Your task to perform on an android device: find snoozed emails in the gmail app Image 0: 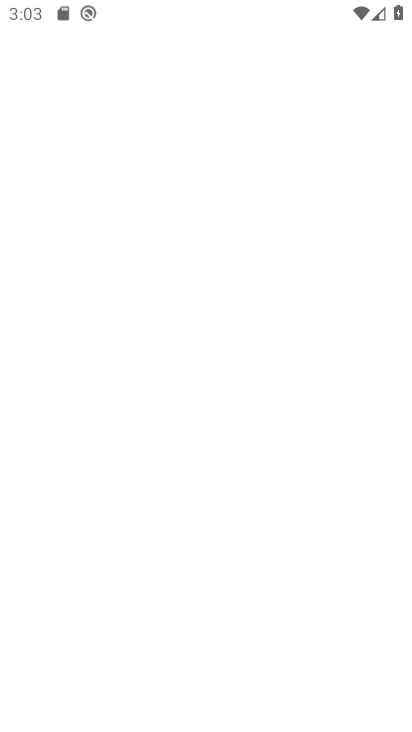
Step 0: press home button
Your task to perform on an android device: find snoozed emails in the gmail app Image 1: 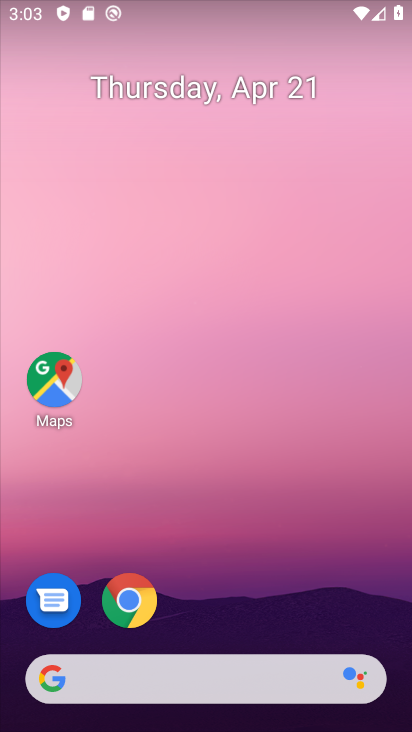
Step 1: drag from (281, 555) to (261, 81)
Your task to perform on an android device: find snoozed emails in the gmail app Image 2: 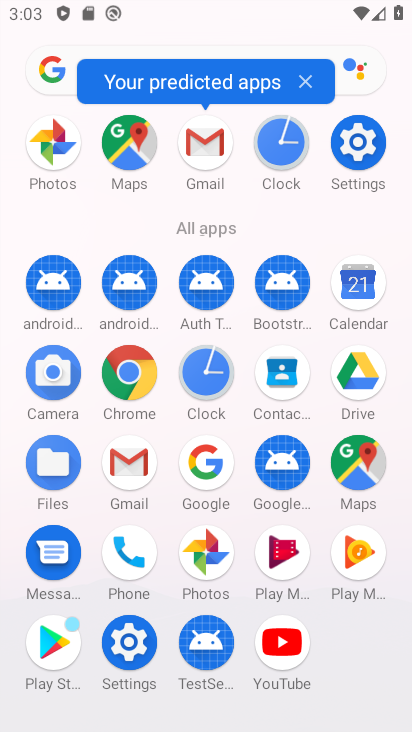
Step 2: click (209, 143)
Your task to perform on an android device: find snoozed emails in the gmail app Image 3: 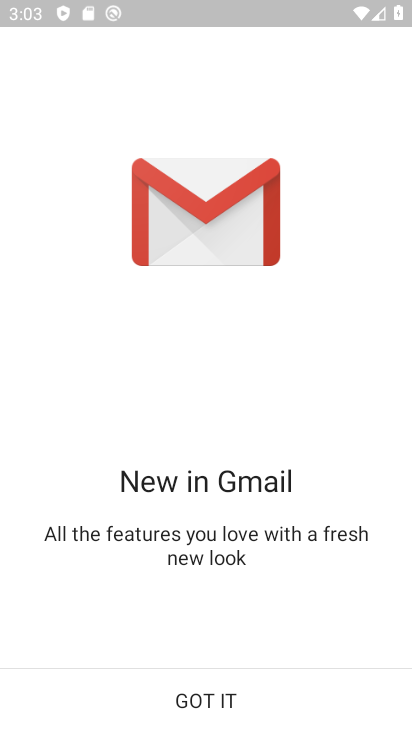
Step 3: click (204, 705)
Your task to perform on an android device: find snoozed emails in the gmail app Image 4: 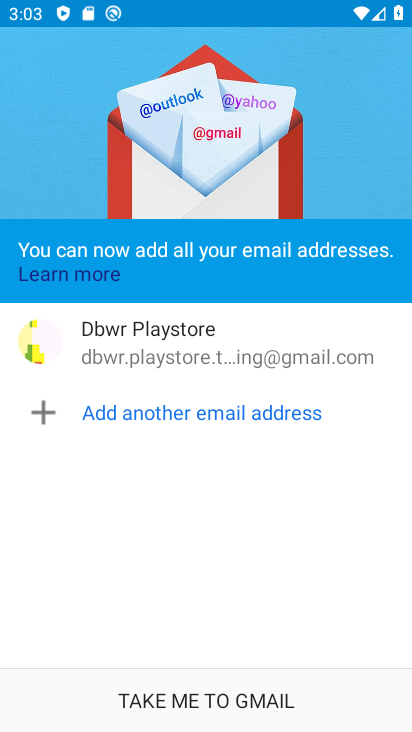
Step 4: click (213, 689)
Your task to perform on an android device: find snoozed emails in the gmail app Image 5: 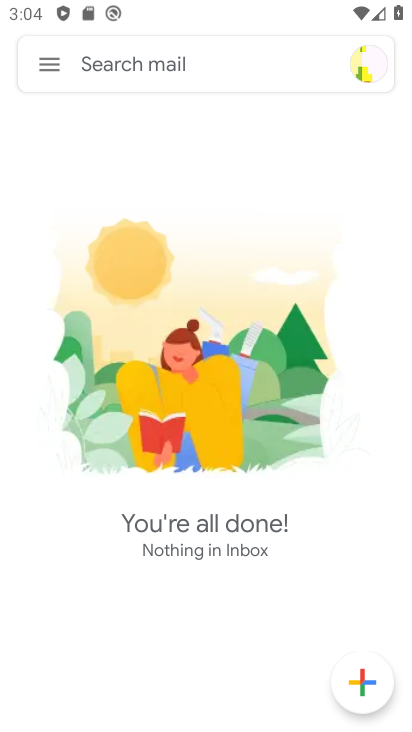
Step 5: click (44, 61)
Your task to perform on an android device: find snoozed emails in the gmail app Image 6: 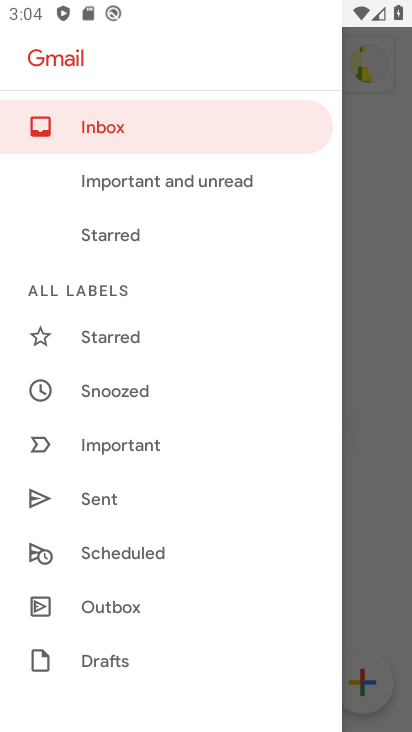
Step 6: click (133, 398)
Your task to perform on an android device: find snoozed emails in the gmail app Image 7: 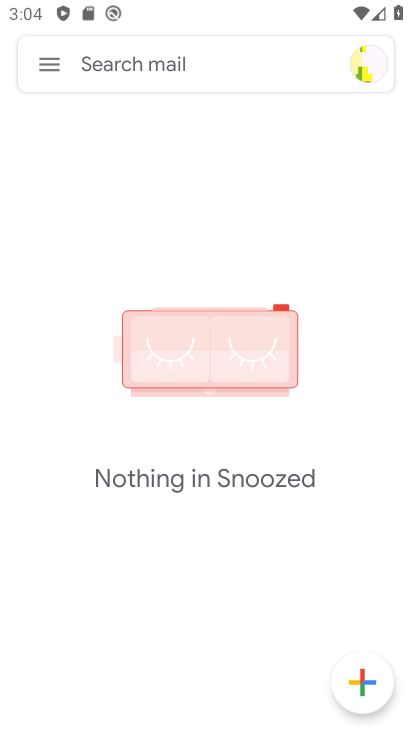
Step 7: click (48, 69)
Your task to perform on an android device: find snoozed emails in the gmail app Image 8: 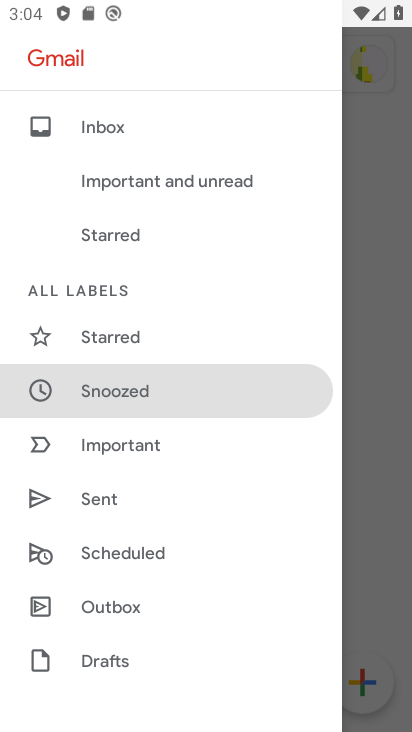
Step 8: drag from (203, 502) to (216, 343)
Your task to perform on an android device: find snoozed emails in the gmail app Image 9: 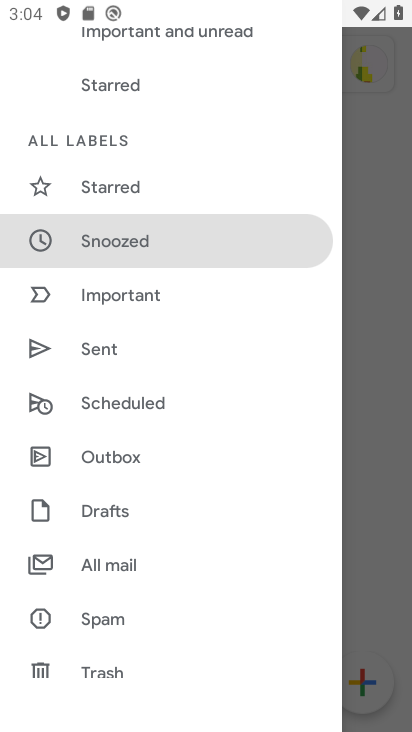
Step 9: click (134, 571)
Your task to perform on an android device: find snoozed emails in the gmail app Image 10: 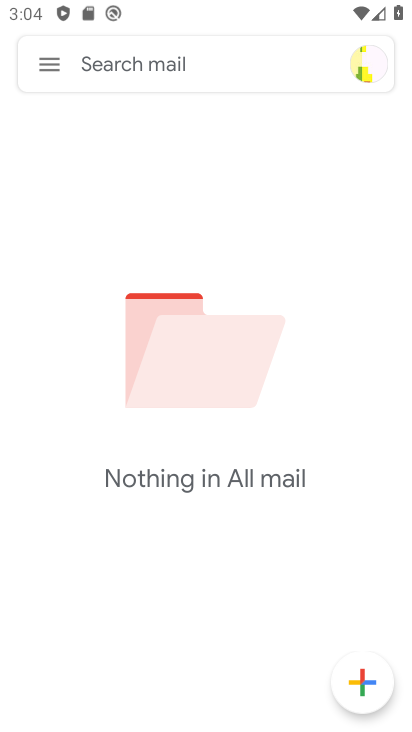
Step 10: task complete